Your task to perform on an android device: add a contact in the contacts app Image 0: 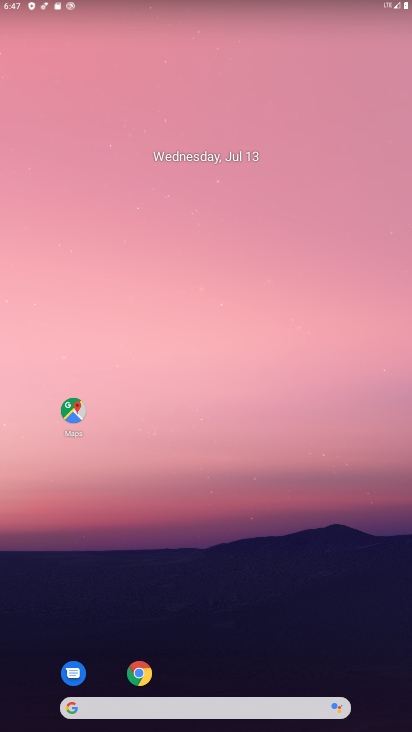
Step 0: drag from (261, 582) to (301, 84)
Your task to perform on an android device: add a contact in the contacts app Image 1: 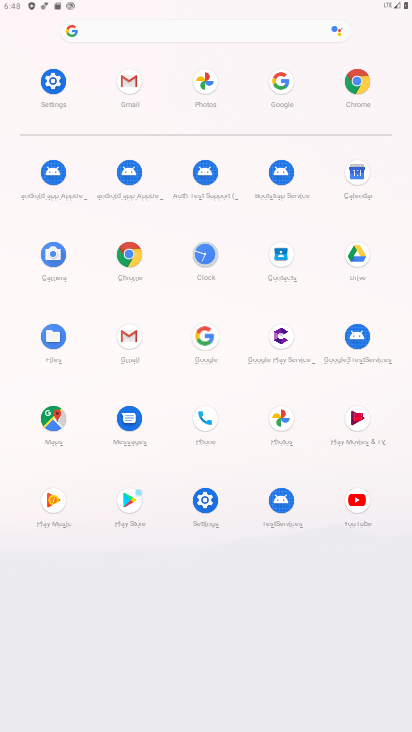
Step 1: click (203, 427)
Your task to perform on an android device: add a contact in the contacts app Image 2: 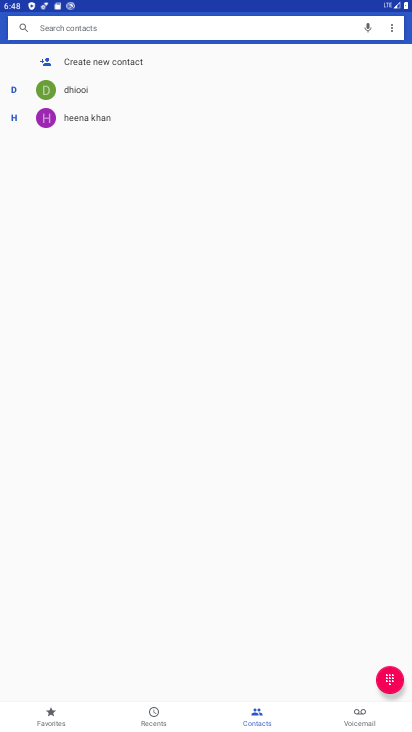
Step 2: click (76, 64)
Your task to perform on an android device: add a contact in the contacts app Image 3: 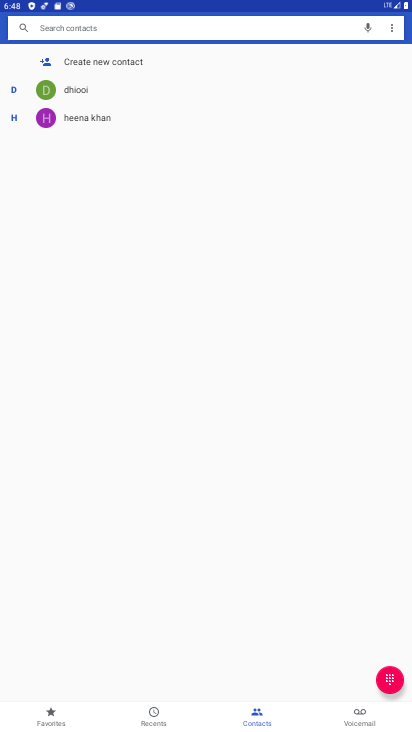
Step 3: click (95, 66)
Your task to perform on an android device: add a contact in the contacts app Image 4: 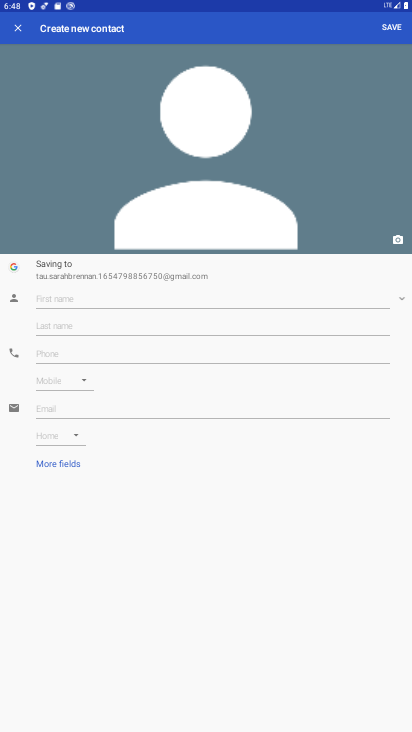
Step 4: click (125, 285)
Your task to perform on an android device: add a contact in the contacts app Image 5: 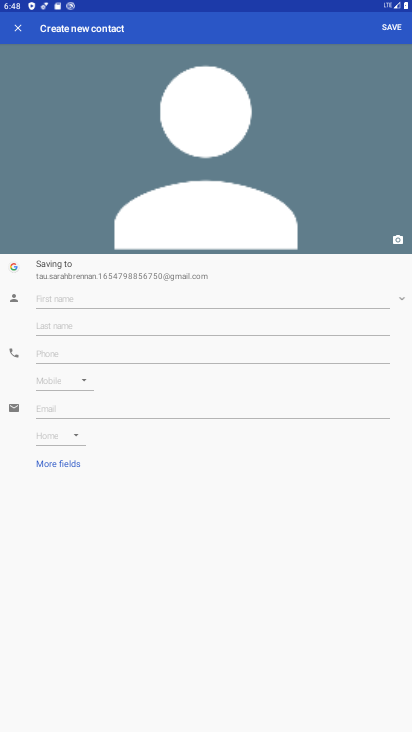
Step 5: click (128, 294)
Your task to perform on an android device: add a contact in the contacts app Image 6: 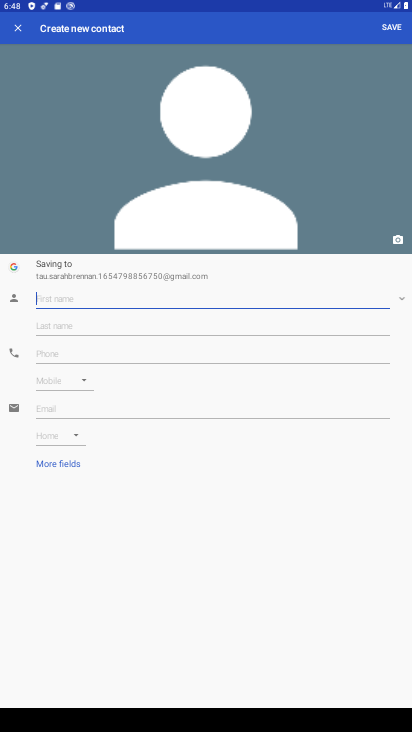
Step 6: type "yhhgfff"
Your task to perform on an android device: add a contact in the contacts app Image 7: 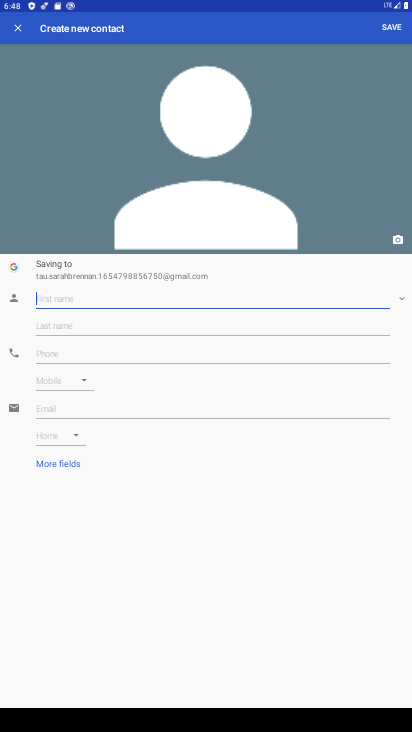
Step 7: click (99, 354)
Your task to perform on an android device: add a contact in the contacts app Image 8: 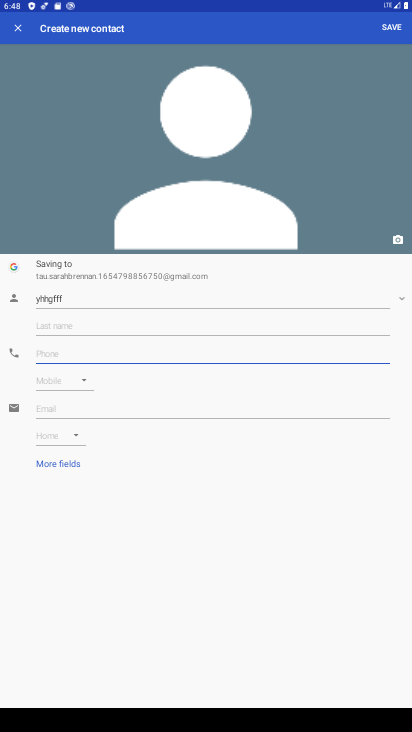
Step 8: type "976543456"
Your task to perform on an android device: add a contact in the contacts app Image 9: 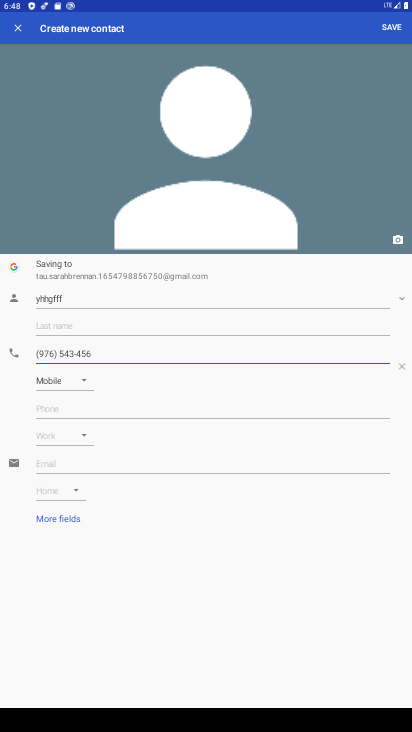
Step 9: click (396, 32)
Your task to perform on an android device: add a contact in the contacts app Image 10: 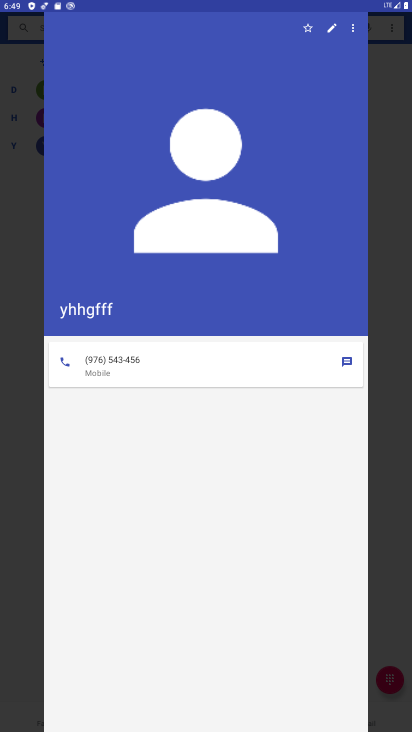
Step 10: task complete